Your task to perform on an android device: turn off notifications settings in the gmail app Image 0: 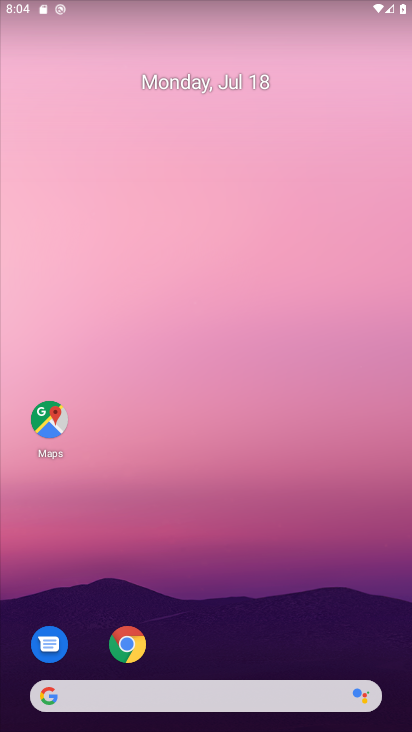
Step 0: drag from (234, 648) to (244, 212)
Your task to perform on an android device: turn off notifications settings in the gmail app Image 1: 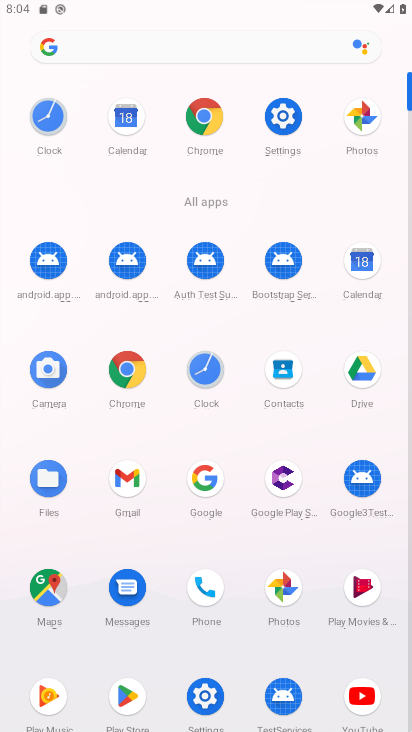
Step 1: click (130, 492)
Your task to perform on an android device: turn off notifications settings in the gmail app Image 2: 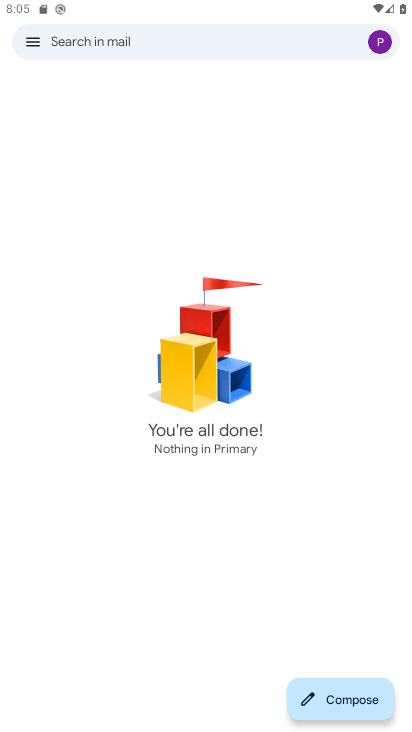
Step 2: task complete